Your task to perform on an android device: install app "Google News" Image 0: 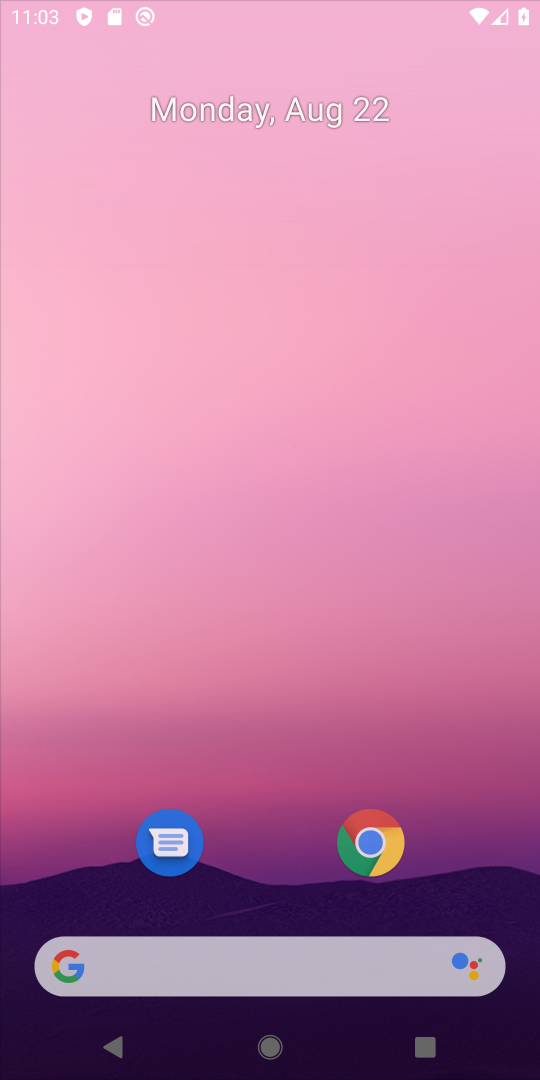
Step 0: click (300, 358)
Your task to perform on an android device: install app "Google News" Image 1: 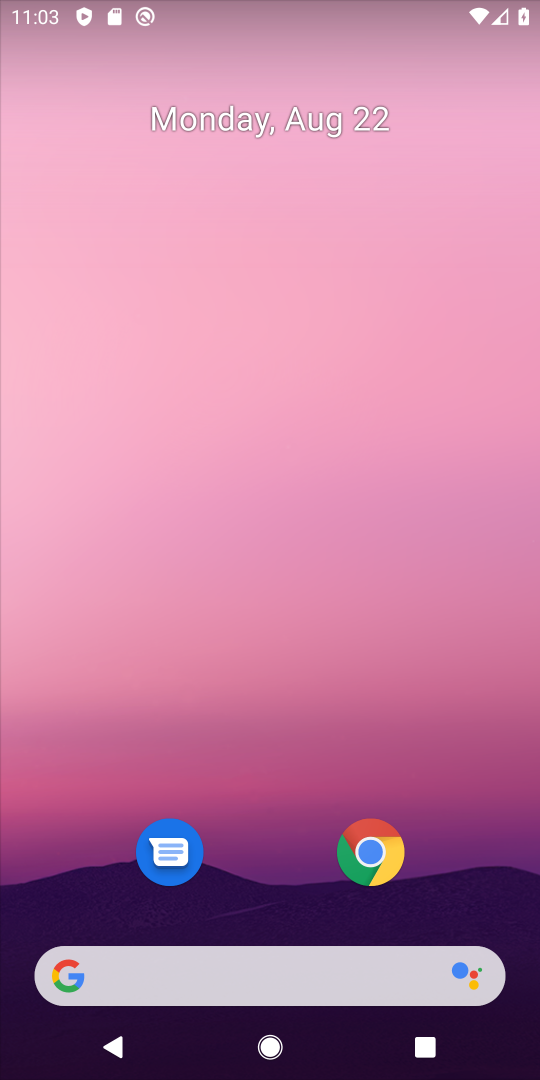
Step 1: drag from (249, 754) to (181, 0)
Your task to perform on an android device: install app "Google News" Image 2: 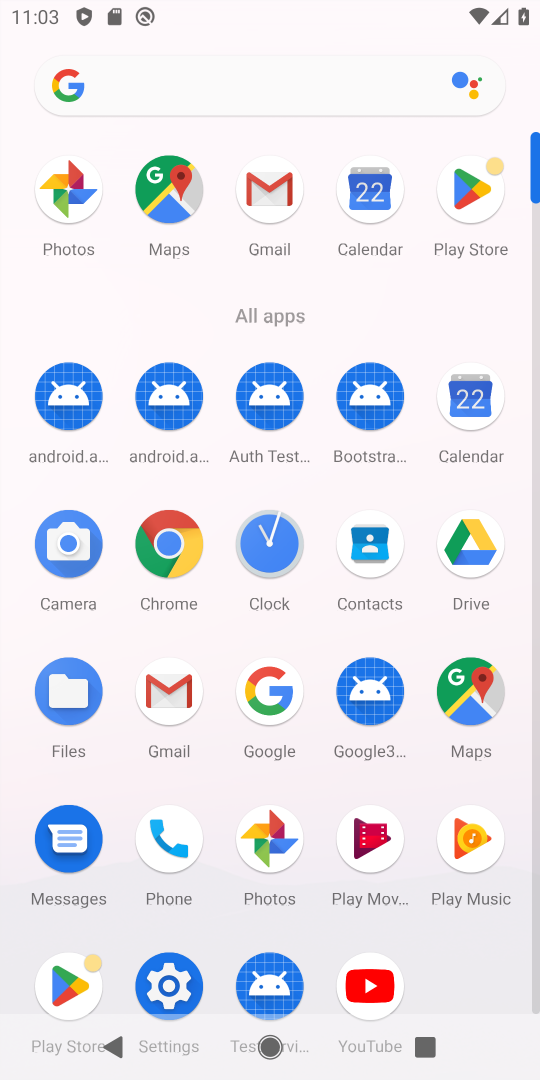
Step 2: click (479, 201)
Your task to perform on an android device: install app "Google News" Image 3: 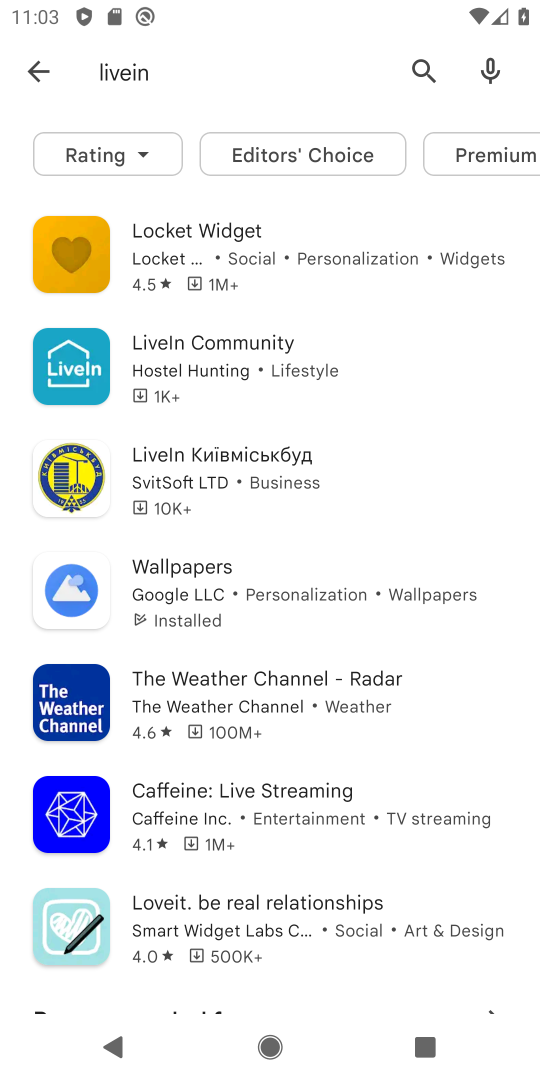
Step 3: click (242, 75)
Your task to perform on an android device: install app "Google News" Image 4: 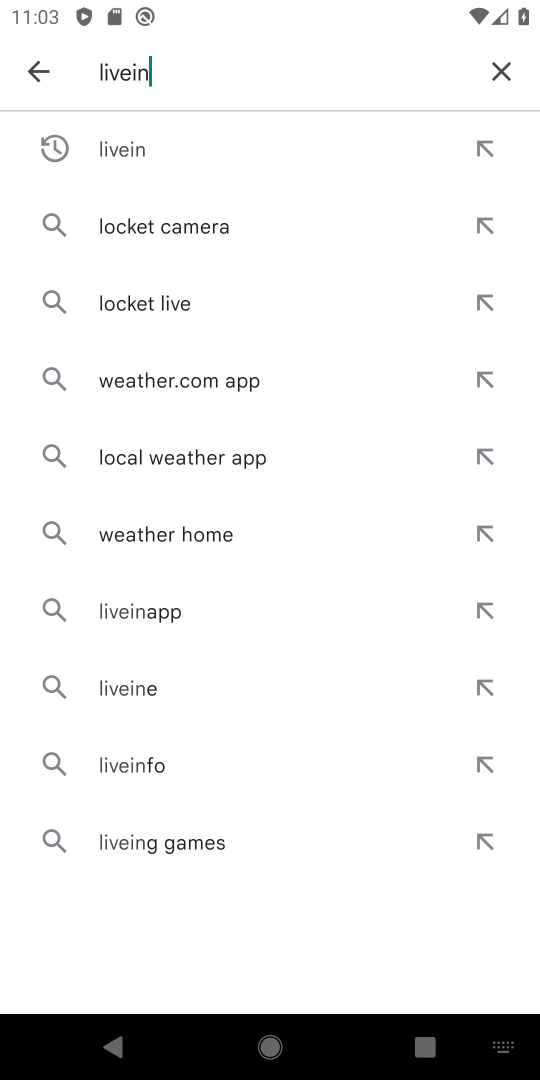
Step 4: click (507, 58)
Your task to perform on an android device: install app "Google News" Image 5: 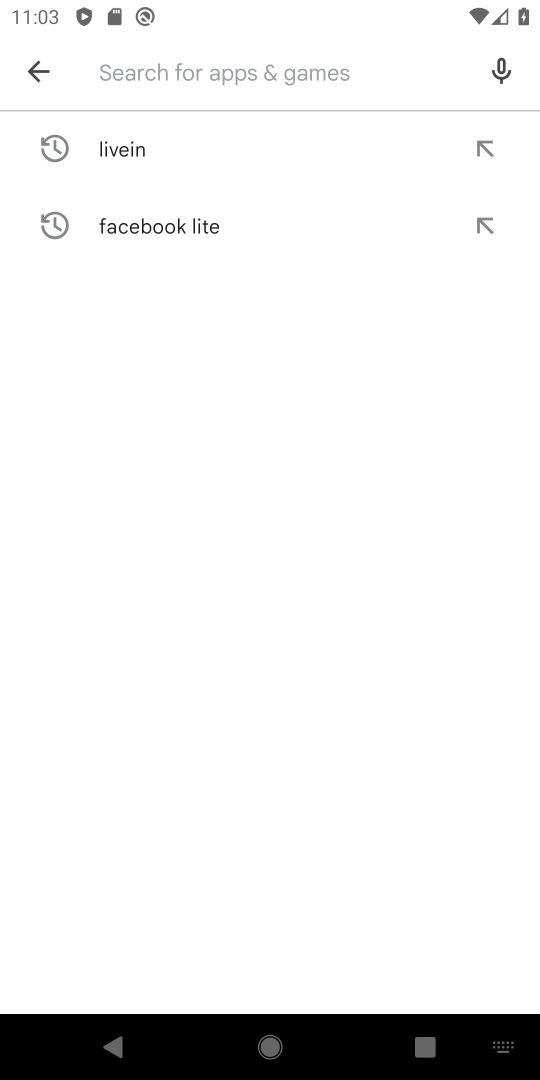
Step 5: type "Google News"
Your task to perform on an android device: install app "Google News" Image 6: 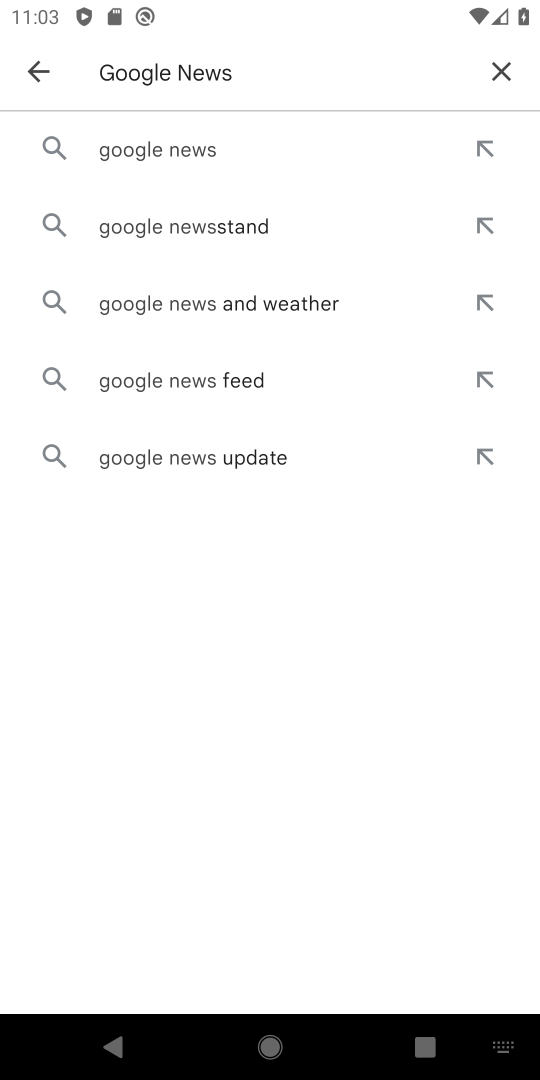
Step 6: click (156, 154)
Your task to perform on an android device: install app "Google News" Image 7: 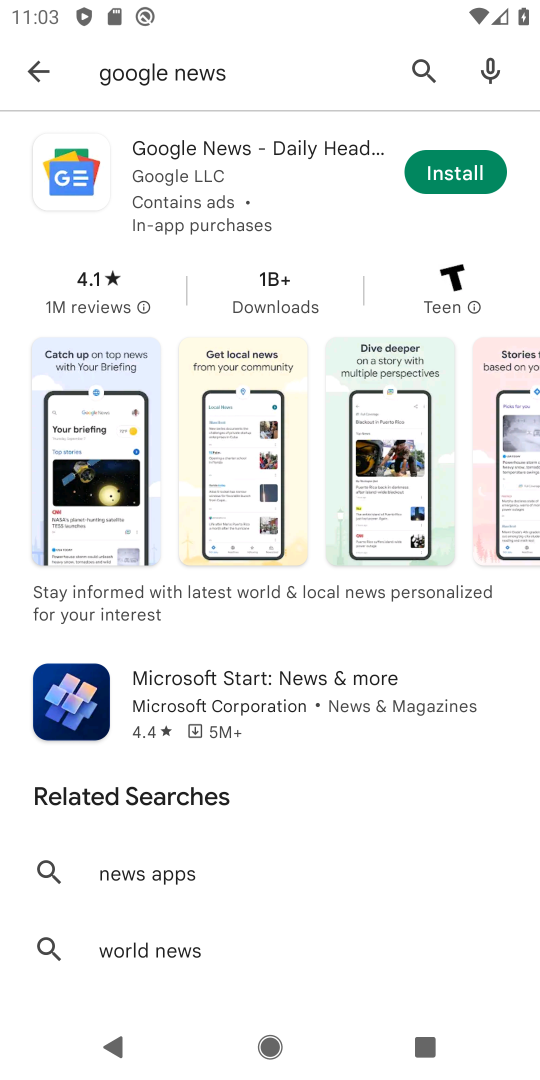
Step 7: click (452, 174)
Your task to perform on an android device: install app "Google News" Image 8: 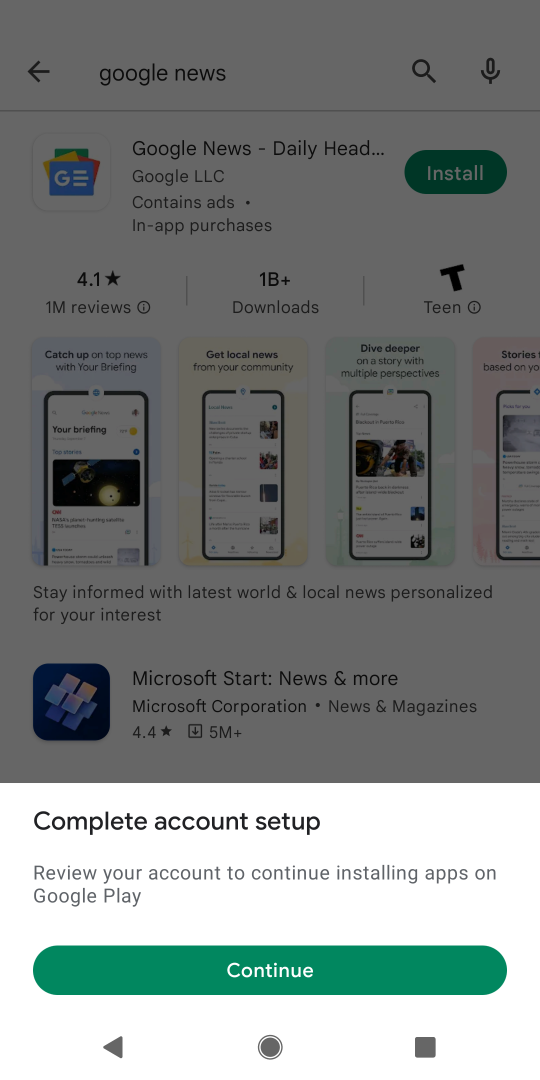
Step 8: click (282, 960)
Your task to perform on an android device: install app "Google News" Image 9: 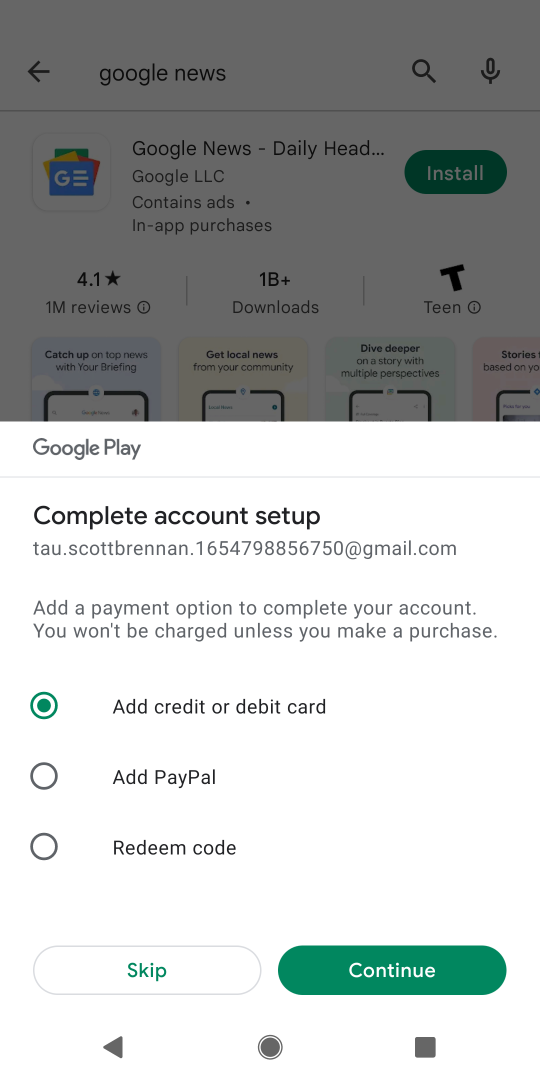
Step 9: click (148, 962)
Your task to perform on an android device: install app "Google News" Image 10: 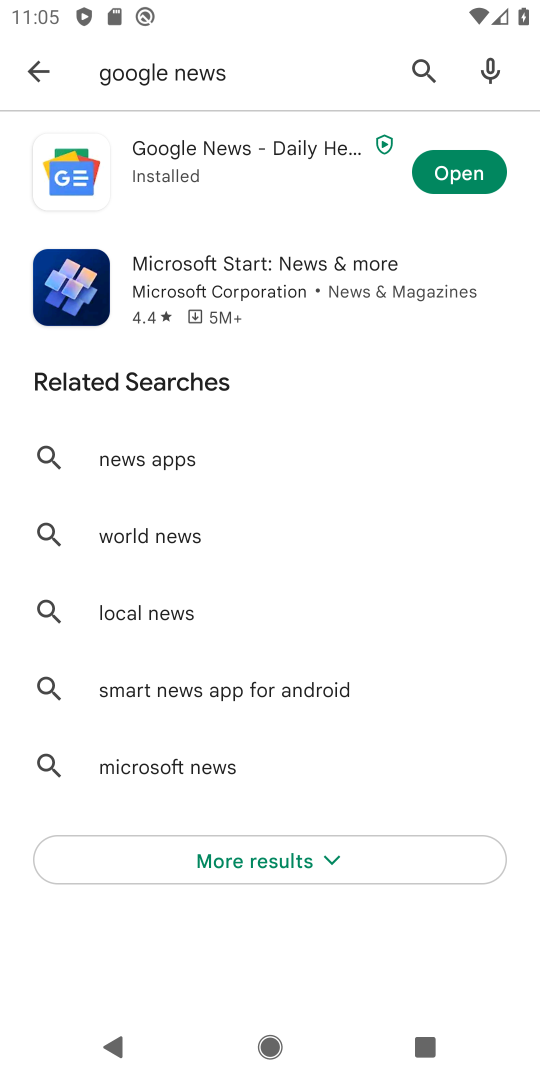
Step 10: task complete